Your task to perform on an android device: check out phone information Image 0: 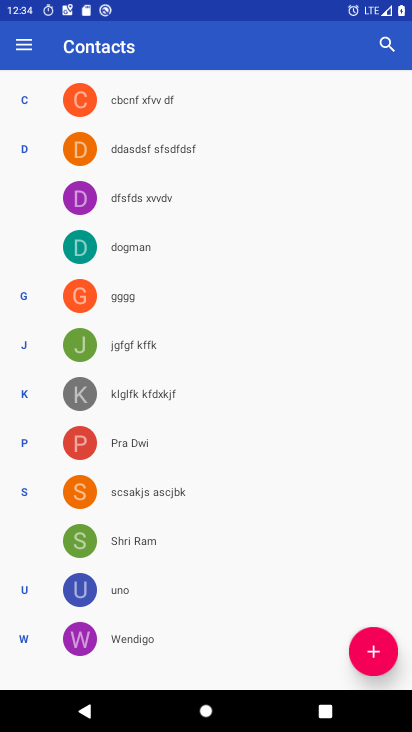
Step 0: press home button
Your task to perform on an android device: check out phone information Image 1: 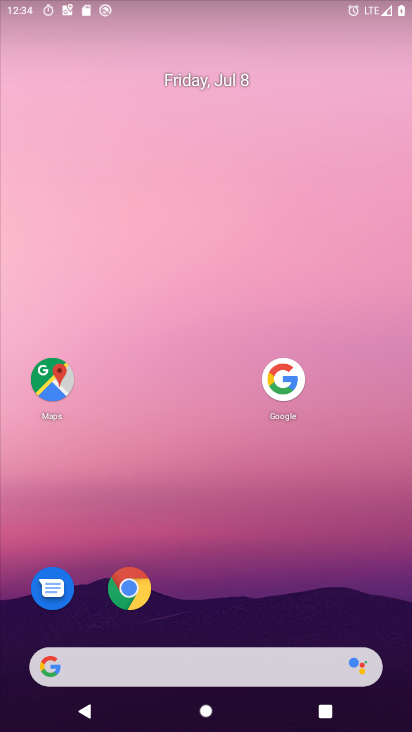
Step 1: drag from (229, 668) to (268, 125)
Your task to perform on an android device: check out phone information Image 2: 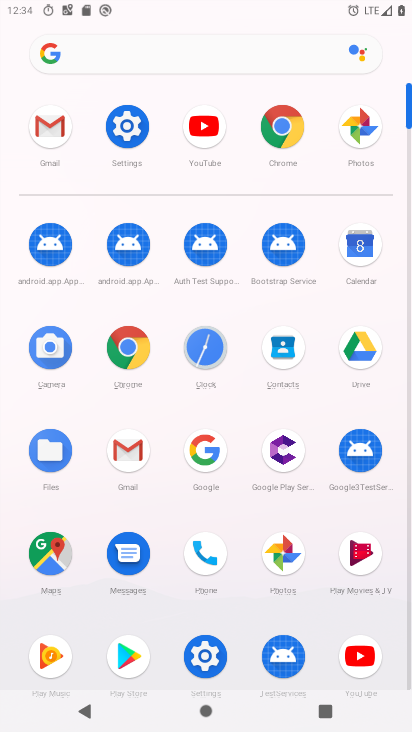
Step 2: click (126, 131)
Your task to perform on an android device: check out phone information Image 3: 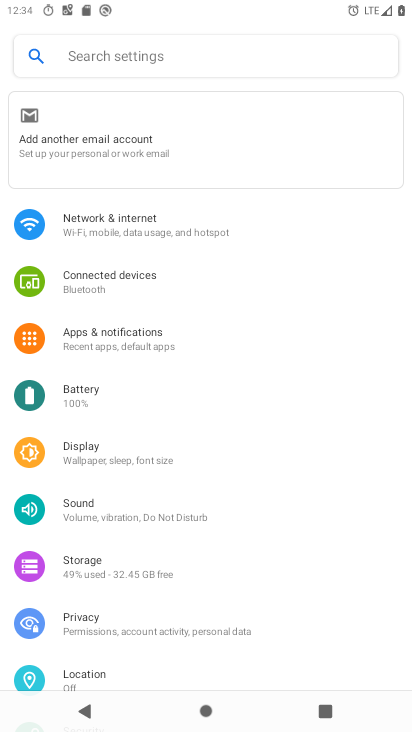
Step 3: drag from (194, 653) to (286, 176)
Your task to perform on an android device: check out phone information Image 4: 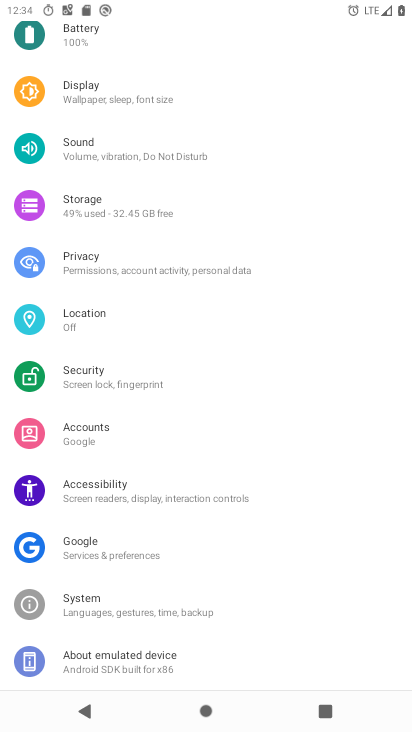
Step 4: click (126, 655)
Your task to perform on an android device: check out phone information Image 5: 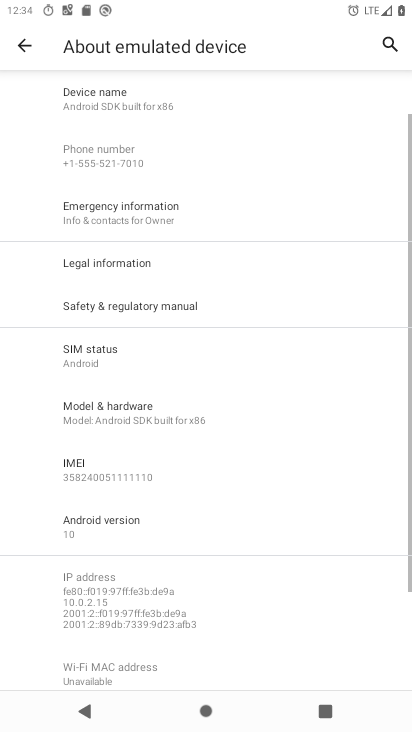
Step 5: task complete